Your task to perform on an android device: open sync settings in chrome Image 0: 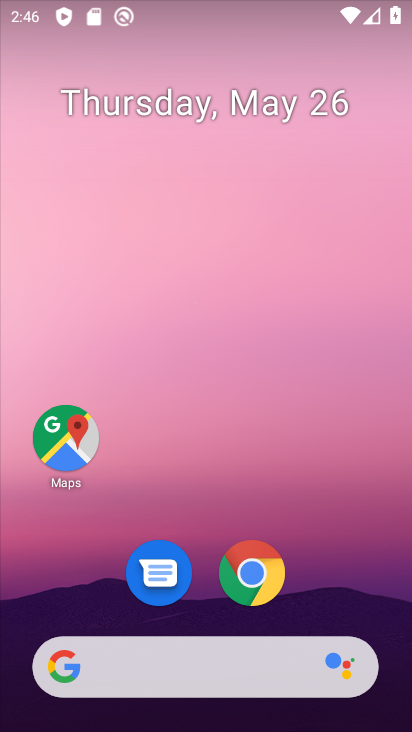
Step 0: click (223, 599)
Your task to perform on an android device: open sync settings in chrome Image 1: 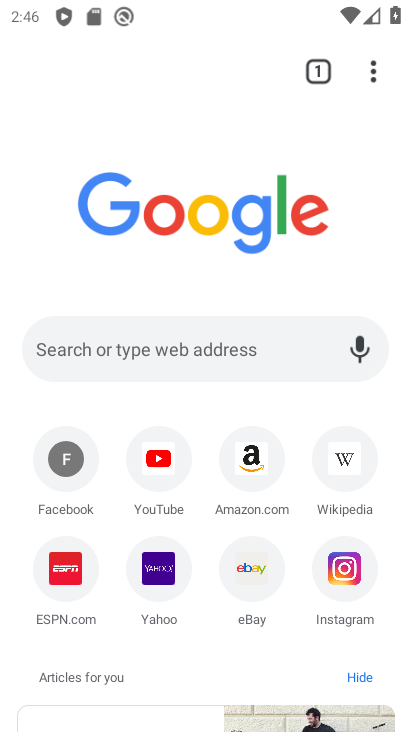
Step 1: click (368, 63)
Your task to perform on an android device: open sync settings in chrome Image 2: 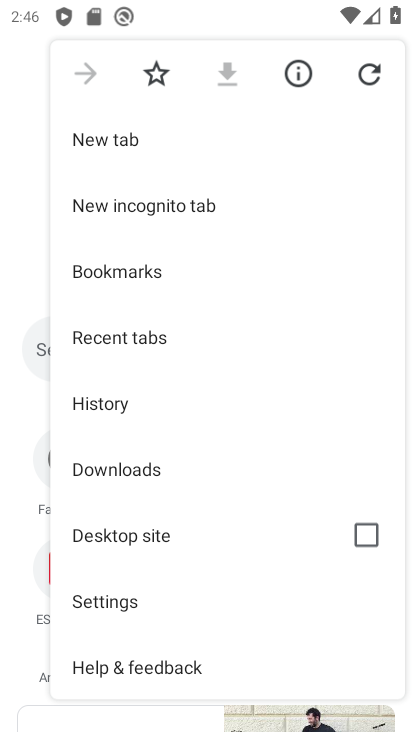
Step 2: click (153, 607)
Your task to perform on an android device: open sync settings in chrome Image 3: 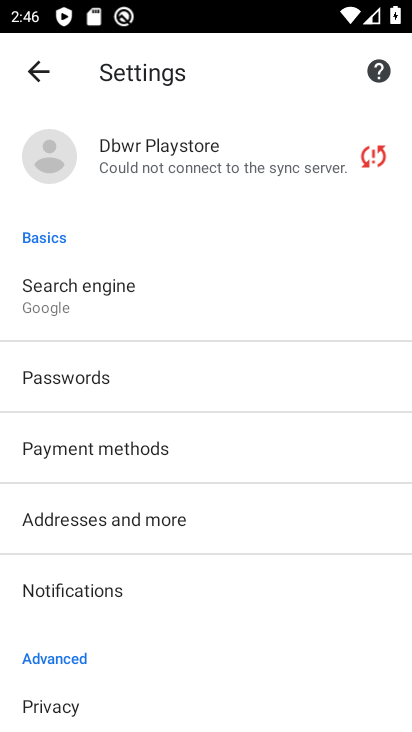
Step 3: drag from (160, 642) to (213, 26)
Your task to perform on an android device: open sync settings in chrome Image 4: 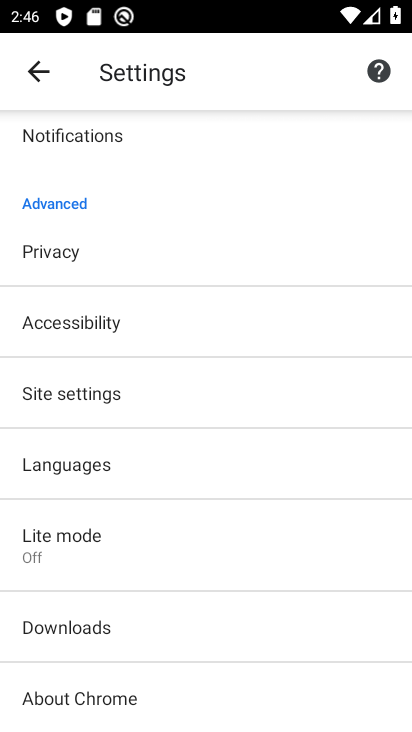
Step 4: drag from (124, 214) to (139, 729)
Your task to perform on an android device: open sync settings in chrome Image 5: 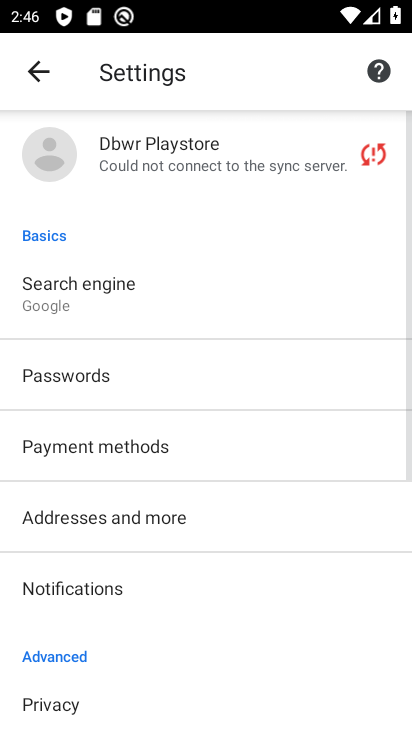
Step 5: click (149, 171)
Your task to perform on an android device: open sync settings in chrome Image 6: 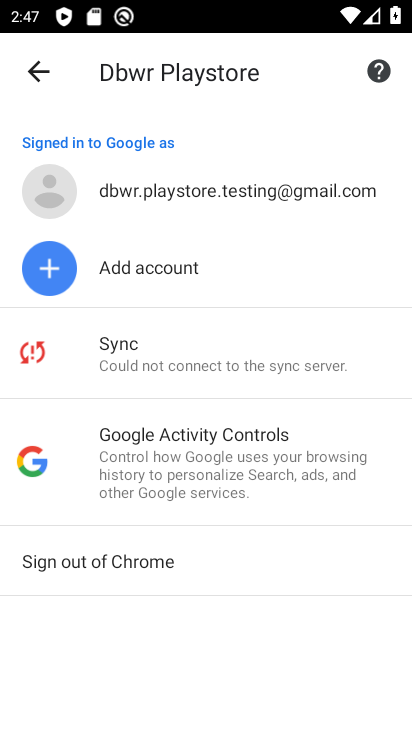
Step 6: task complete